Your task to perform on an android device: change notifications settings Image 0: 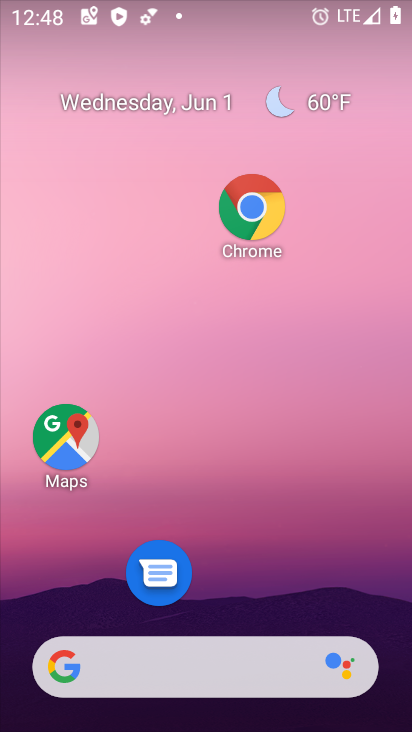
Step 0: drag from (255, 575) to (215, 74)
Your task to perform on an android device: change notifications settings Image 1: 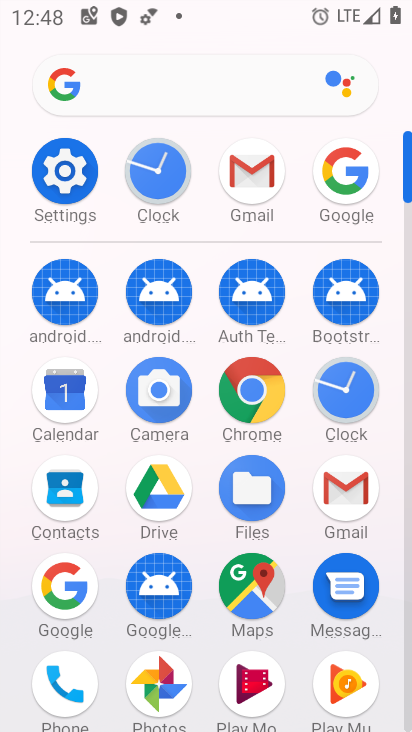
Step 1: click (87, 171)
Your task to perform on an android device: change notifications settings Image 2: 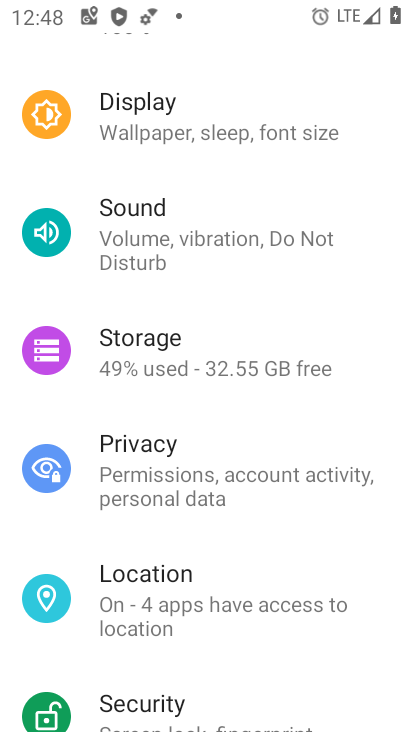
Step 2: drag from (220, 226) to (219, 557)
Your task to perform on an android device: change notifications settings Image 3: 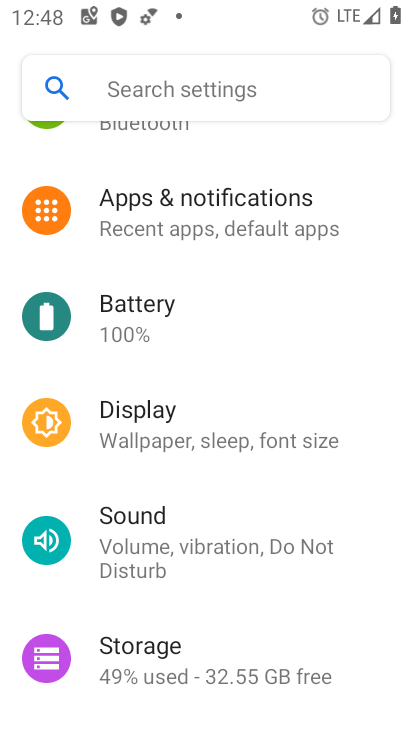
Step 3: click (218, 230)
Your task to perform on an android device: change notifications settings Image 4: 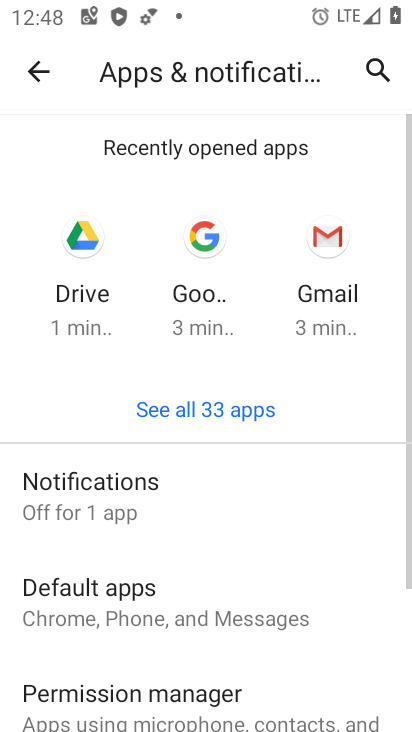
Step 4: click (165, 504)
Your task to perform on an android device: change notifications settings Image 5: 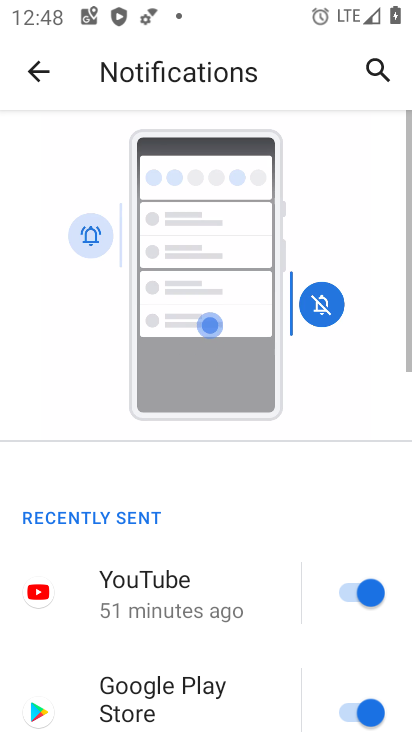
Step 5: drag from (210, 655) to (260, 187)
Your task to perform on an android device: change notifications settings Image 6: 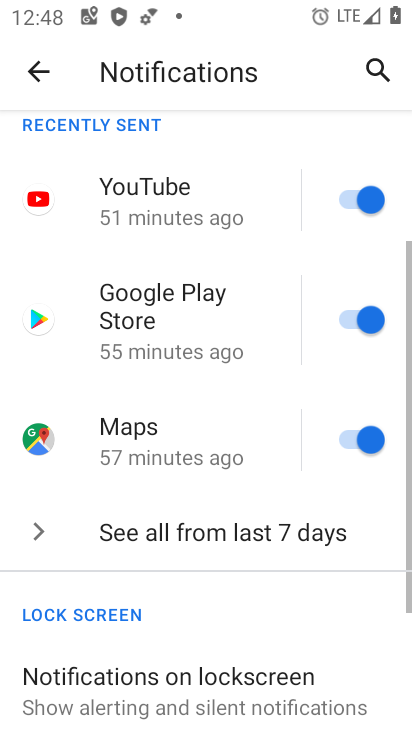
Step 6: drag from (199, 575) to (217, 230)
Your task to perform on an android device: change notifications settings Image 7: 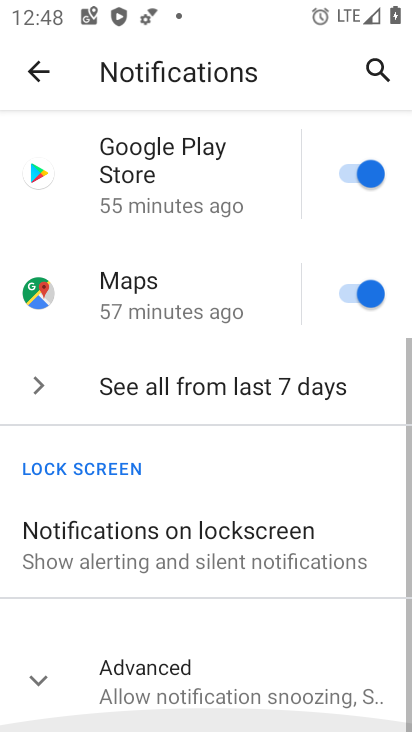
Step 7: drag from (205, 583) to (249, 274)
Your task to perform on an android device: change notifications settings Image 8: 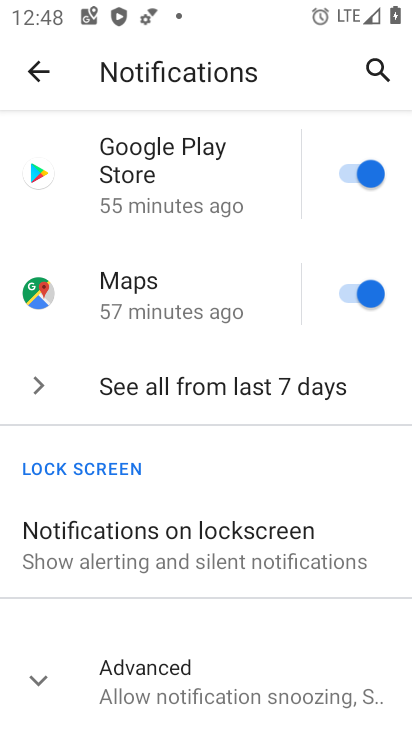
Step 8: drag from (229, 620) to (240, 300)
Your task to perform on an android device: change notifications settings Image 9: 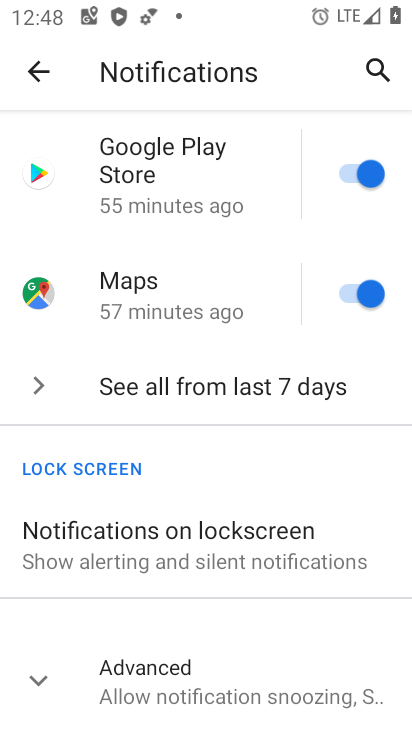
Step 9: drag from (242, 202) to (243, 571)
Your task to perform on an android device: change notifications settings Image 10: 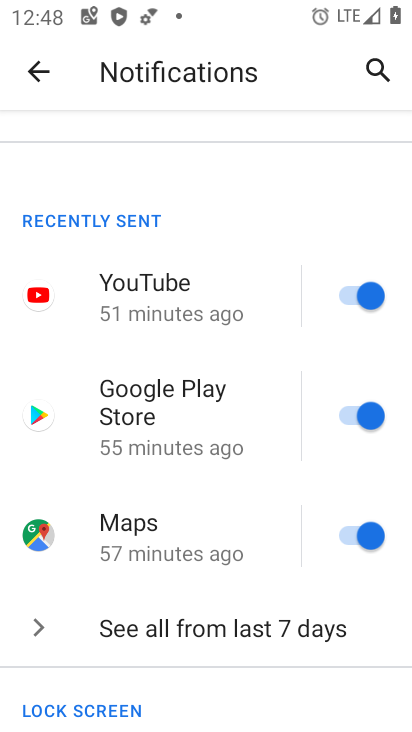
Step 10: drag from (253, 252) to (259, 571)
Your task to perform on an android device: change notifications settings Image 11: 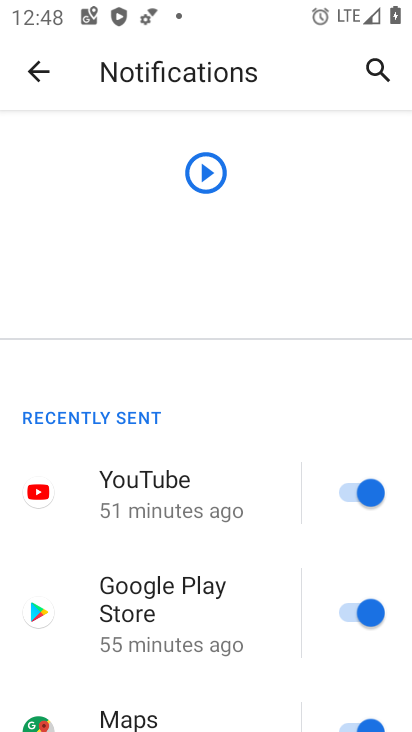
Step 11: drag from (220, 320) to (244, 599)
Your task to perform on an android device: change notifications settings Image 12: 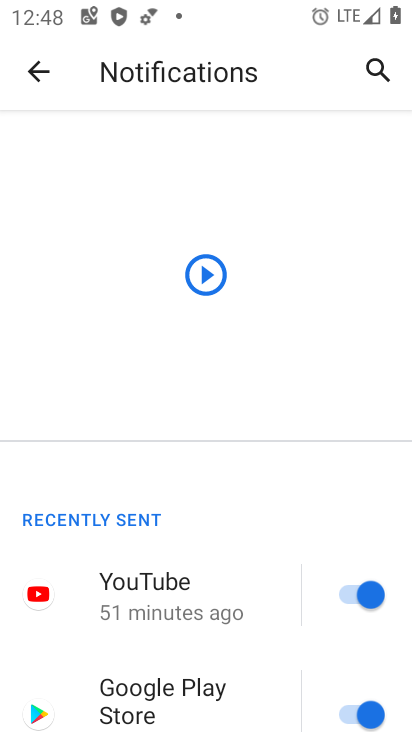
Step 12: drag from (247, 643) to (247, 299)
Your task to perform on an android device: change notifications settings Image 13: 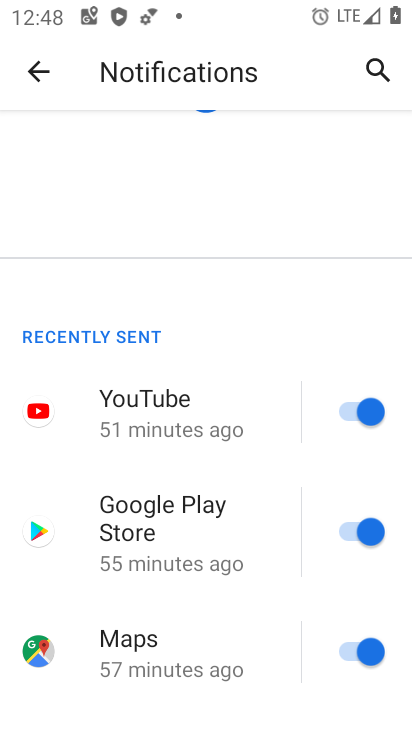
Step 13: drag from (223, 653) to (247, 333)
Your task to perform on an android device: change notifications settings Image 14: 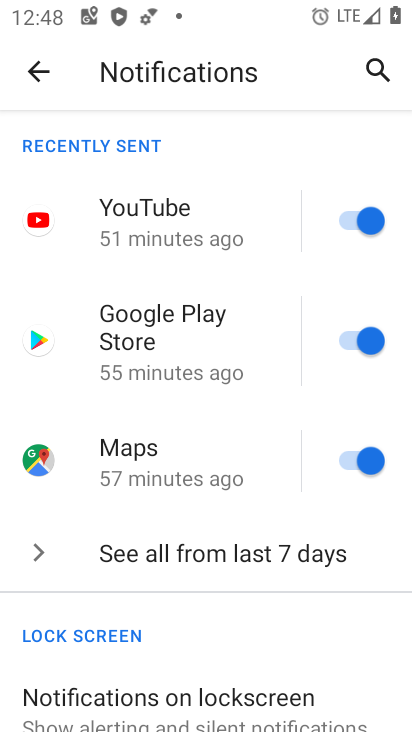
Step 14: drag from (240, 620) to (257, 408)
Your task to perform on an android device: change notifications settings Image 15: 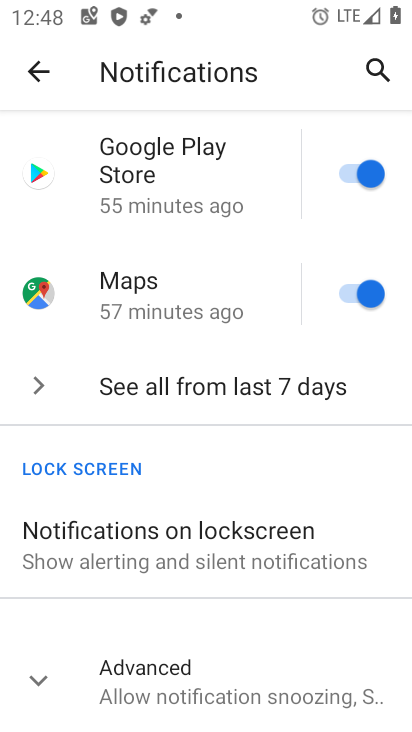
Step 15: click (209, 542)
Your task to perform on an android device: change notifications settings Image 16: 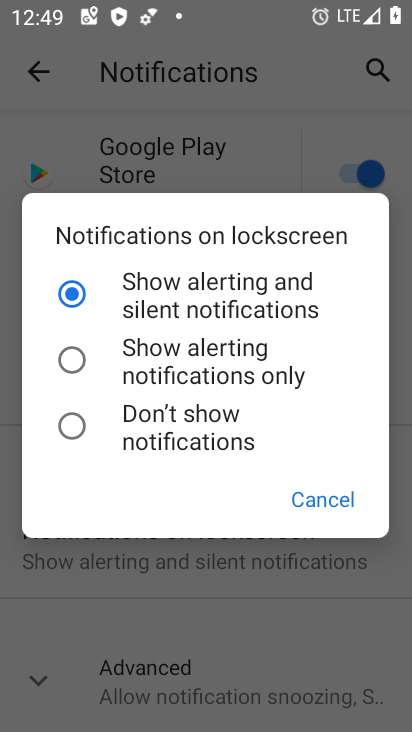
Step 16: click (209, 409)
Your task to perform on an android device: change notifications settings Image 17: 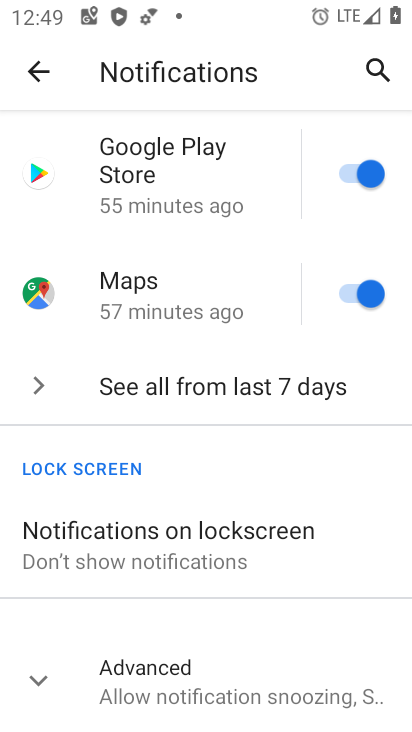
Step 17: task complete